Your task to perform on an android device: Open the phone app and click the voicemail tab. Image 0: 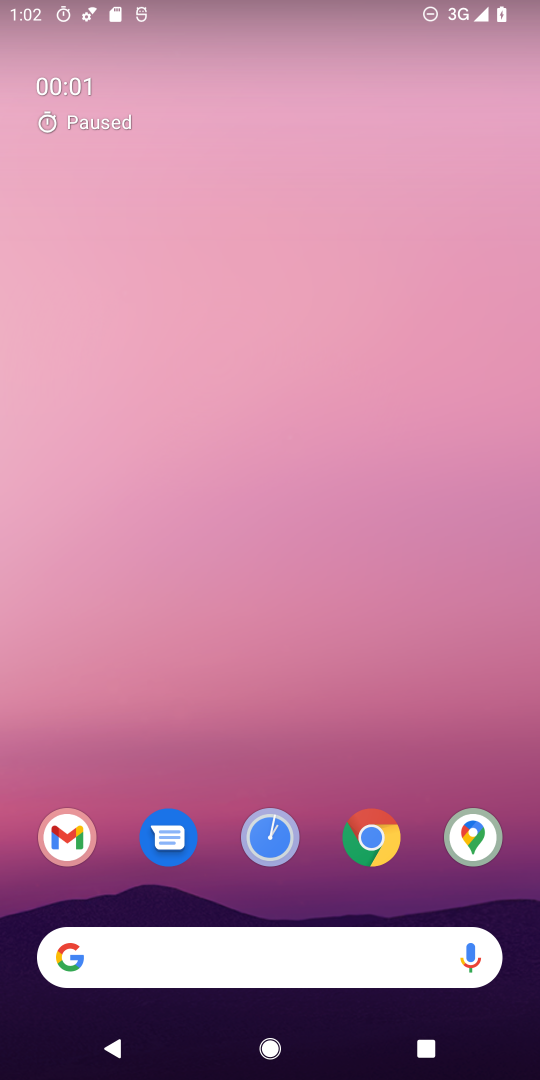
Step 0: drag from (429, 898) to (236, 40)
Your task to perform on an android device: Open the phone app and click the voicemail tab. Image 1: 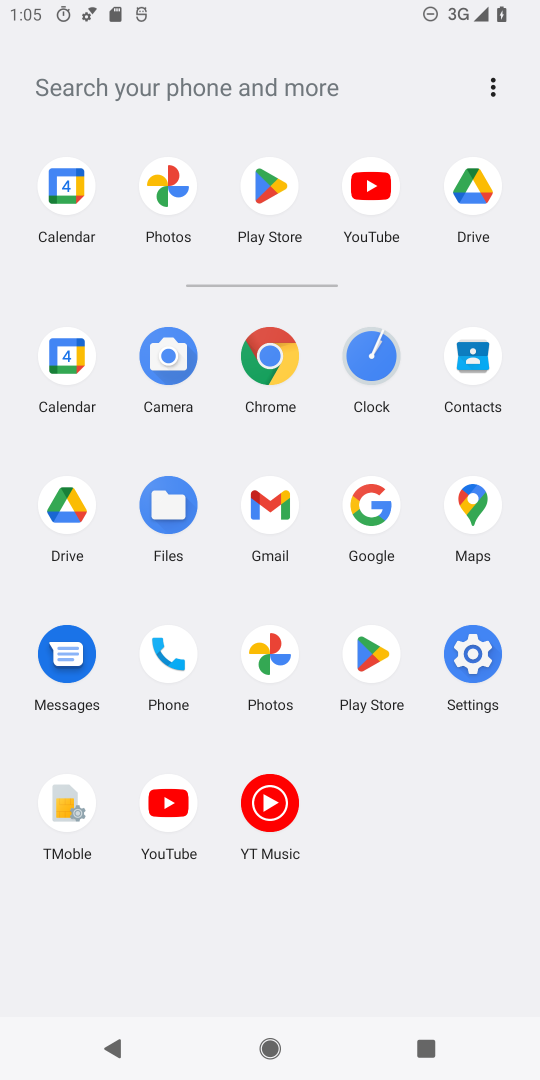
Step 1: click (169, 664)
Your task to perform on an android device: Open the phone app and click the voicemail tab. Image 2: 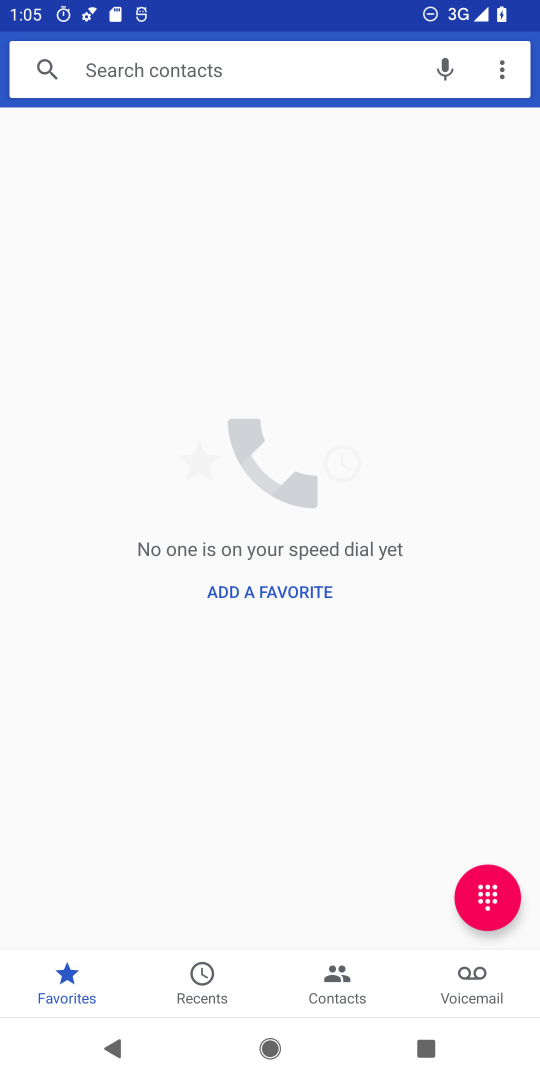
Step 2: click (460, 965)
Your task to perform on an android device: Open the phone app and click the voicemail tab. Image 3: 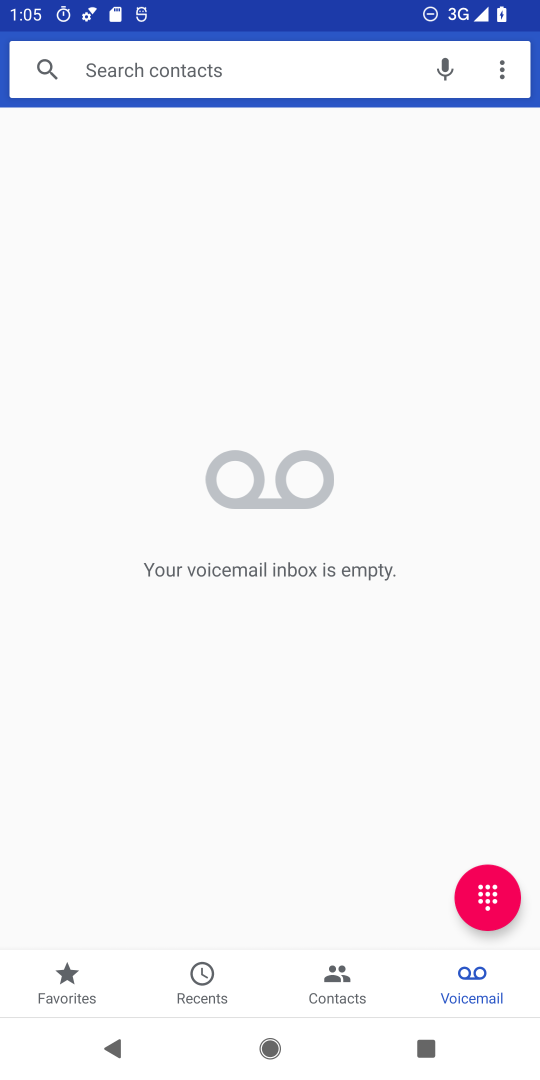
Step 3: task complete